Your task to perform on an android device: Open Android settings Image 0: 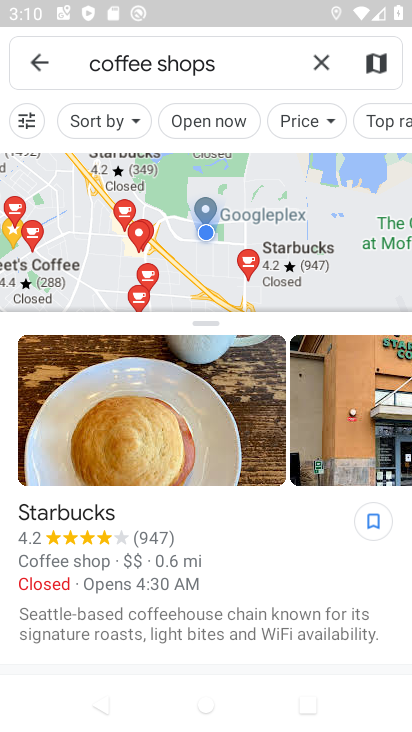
Step 0: press home button
Your task to perform on an android device: Open Android settings Image 1: 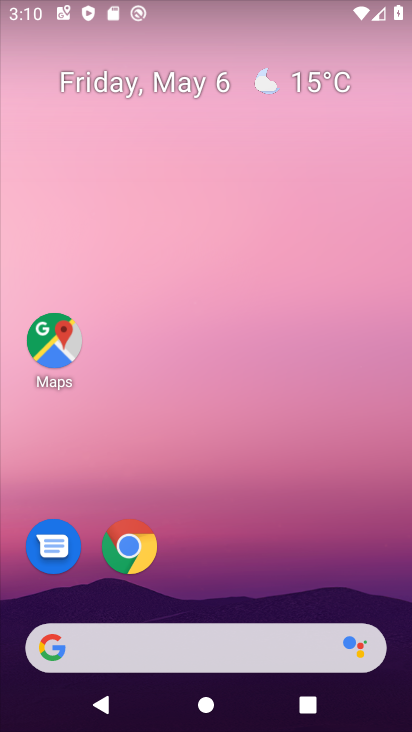
Step 1: drag from (187, 624) to (188, 245)
Your task to perform on an android device: Open Android settings Image 2: 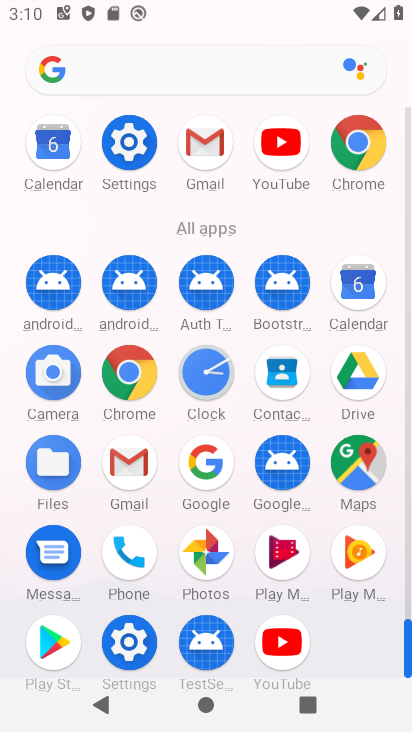
Step 2: click (118, 141)
Your task to perform on an android device: Open Android settings Image 3: 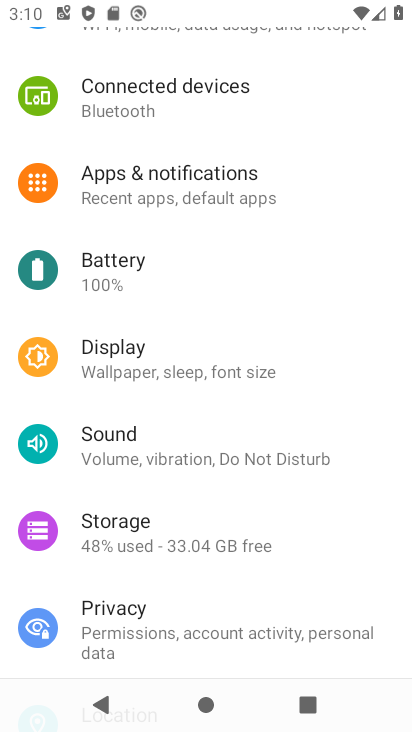
Step 3: task complete